Your task to perform on an android device: delete the emails in spam in the gmail app Image 0: 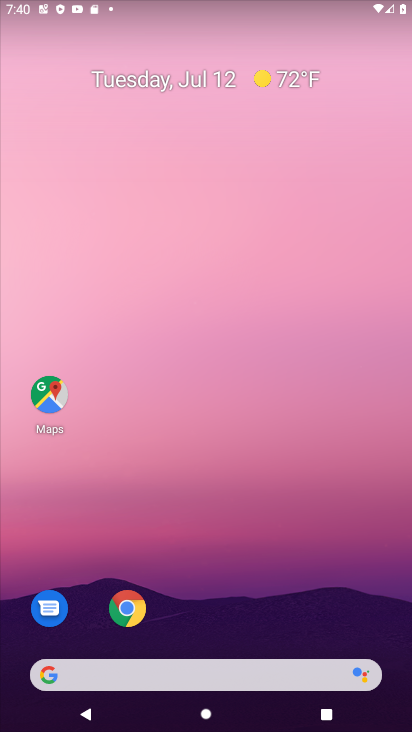
Step 0: drag from (375, 611) to (374, 219)
Your task to perform on an android device: delete the emails in spam in the gmail app Image 1: 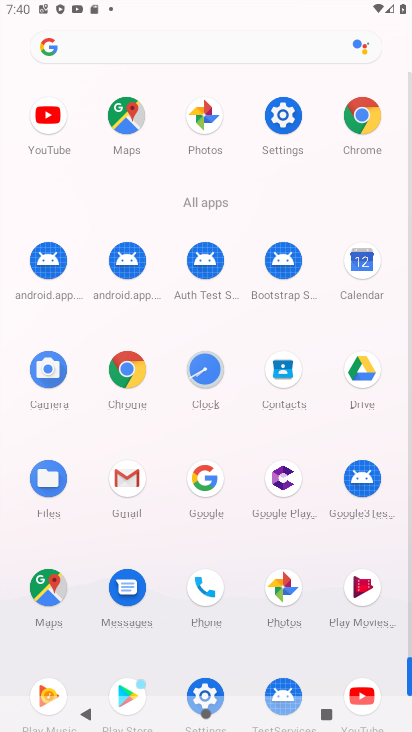
Step 1: click (127, 483)
Your task to perform on an android device: delete the emails in spam in the gmail app Image 2: 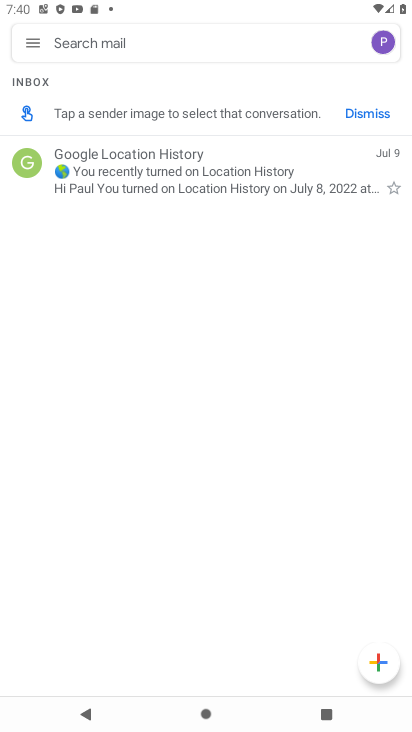
Step 2: click (39, 47)
Your task to perform on an android device: delete the emails in spam in the gmail app Image 3: 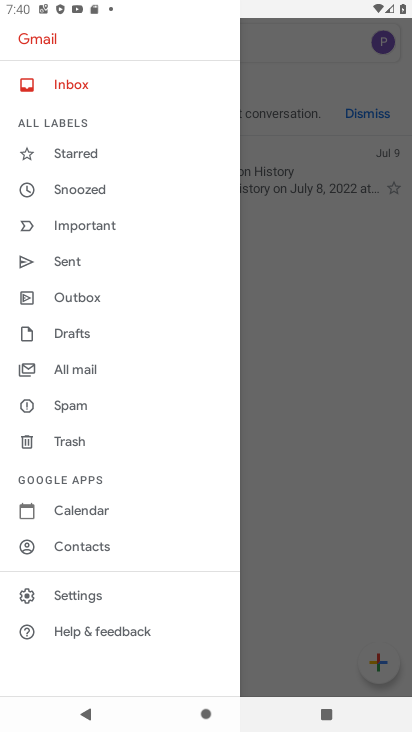
Step 3: click (100, 413)
Your task to perform on an android device: delete the emails in spam in the gmail app Image 4: 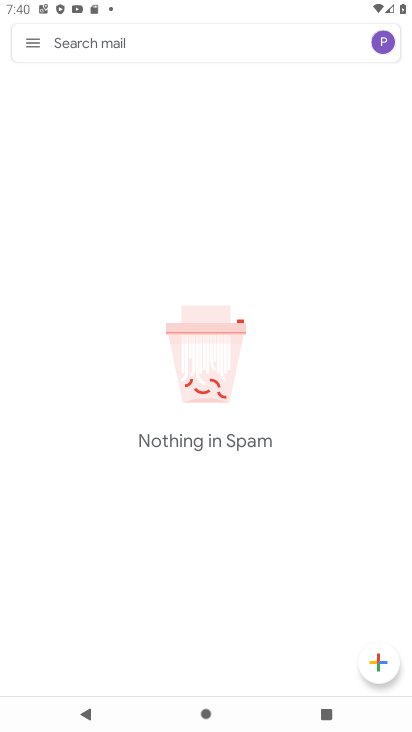
Step 4: task complete